Your task to perform on an android device: check google app version Image 0: 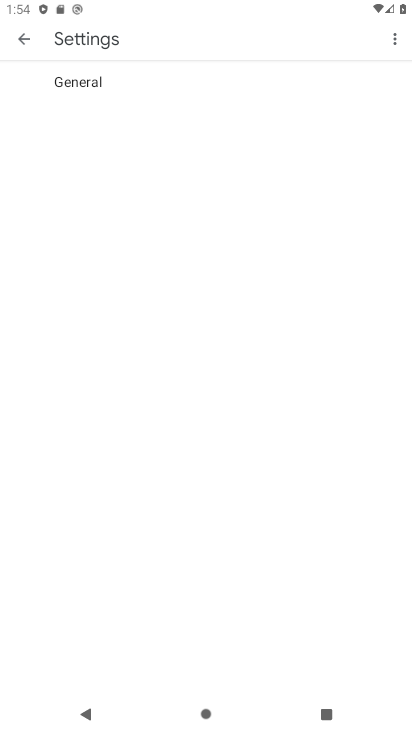
Step 0: press home button
Your task to perform on an android device: check google app version Image 1: 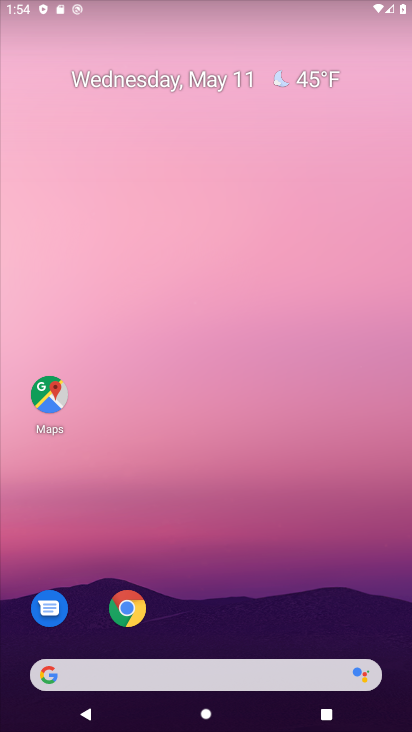
Step 1: drag from (187, 620) to (185, 99)
Your task to perform on an android device: check google app version Image 2: 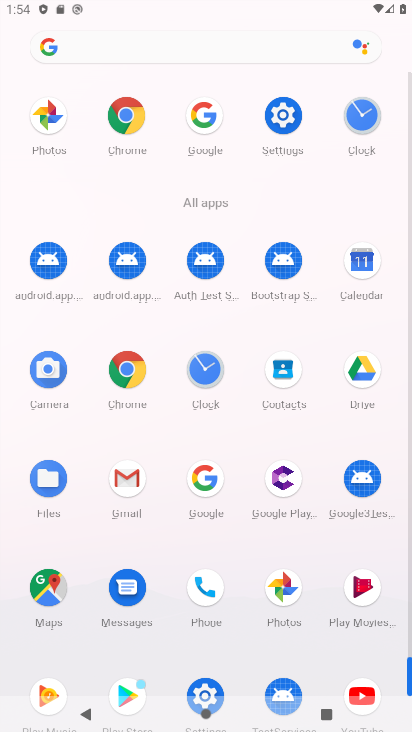
Step 2: click (200, 479)
Your task to perform on an android device: check google app version Image 3: 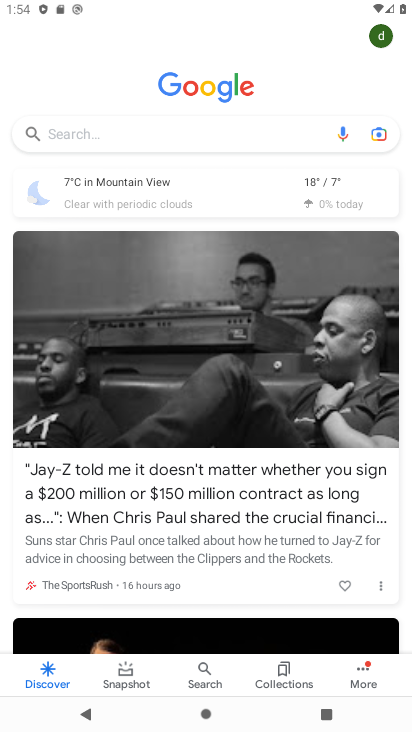
Step 3: click (378, 35)
Your task to perform on an android device: check google app version Image 4: 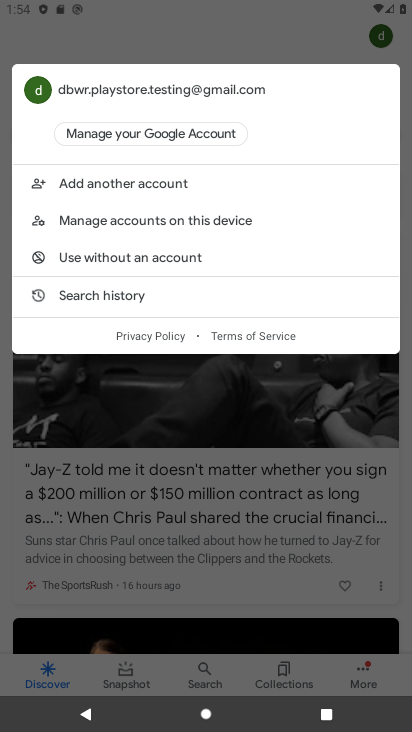
Step 4: click (243, 37)
Your task to perform on an android device: check google app version Image 5: 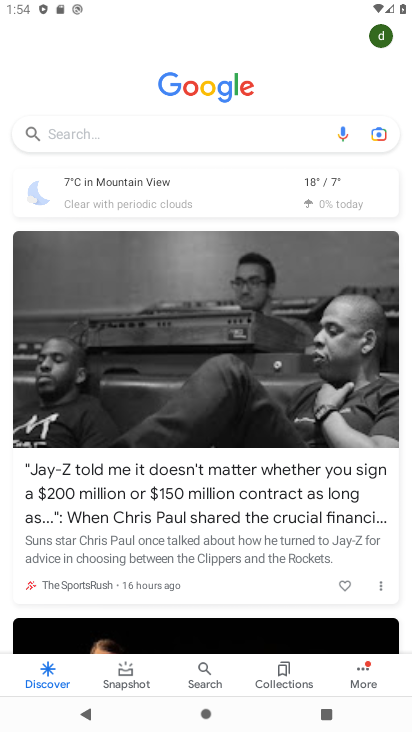
Step 5: click (359, 673)
Your task to perform on an android device: check google app version Image 6: 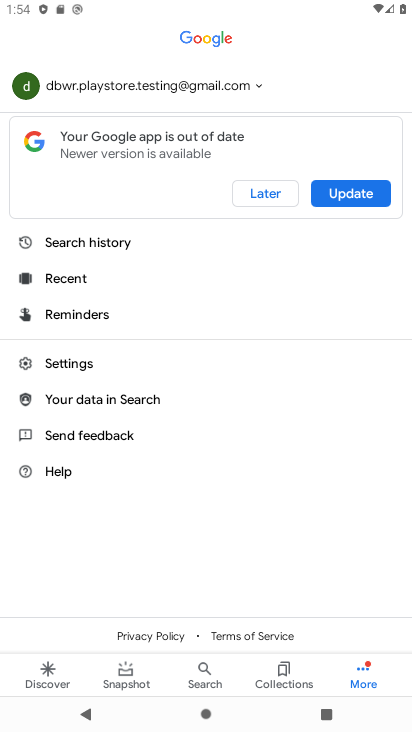
Step 6: click (63, 362)
Your task to perform on an android device: check google app version Image 7: 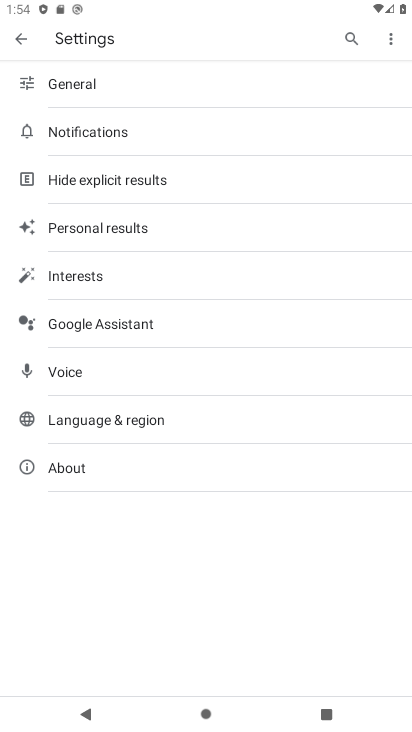
Step 7: click (71, 467)
Your task to perform on an android device: check google app version Image 8: 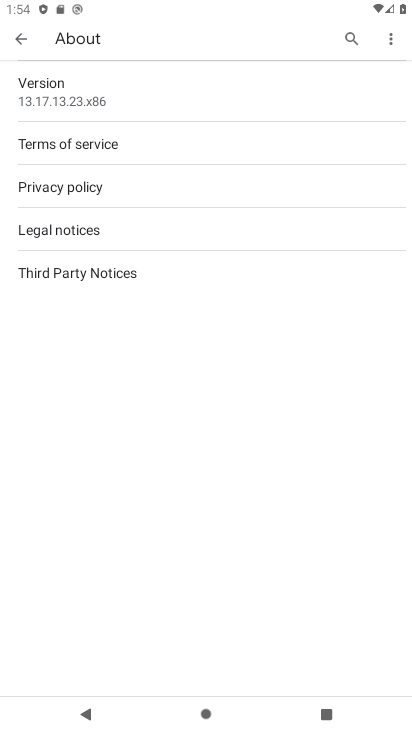
Step 8: task complete